Your task to perform on an android device: toggle improve location accuracy Image 0: 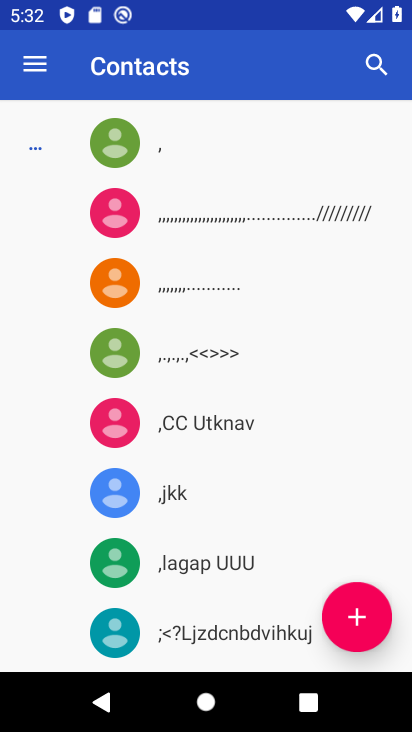
Step 0: press back button
Your task to perform on an android device: toggle improve location accuracy Image 1: 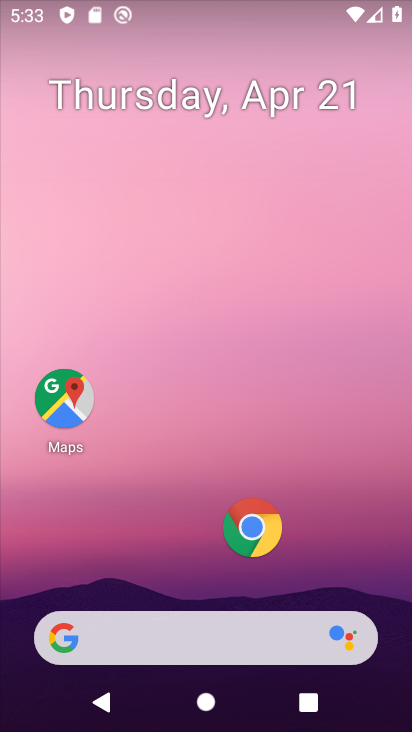
Step 1: drag from (203, 467) to (262, 65)
Your task to perform on an android device: toggle improve location accuracy Image 2: 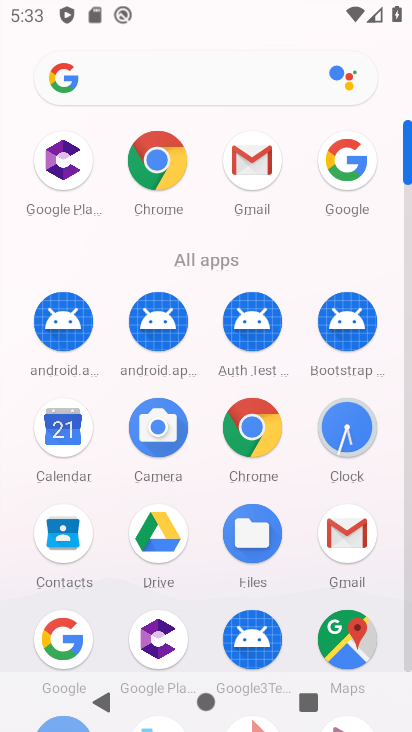
Step 2: drag from (195, 596) to (355, 35)
Your task to perform on an android device: toggle improve location accuracy Image 3: 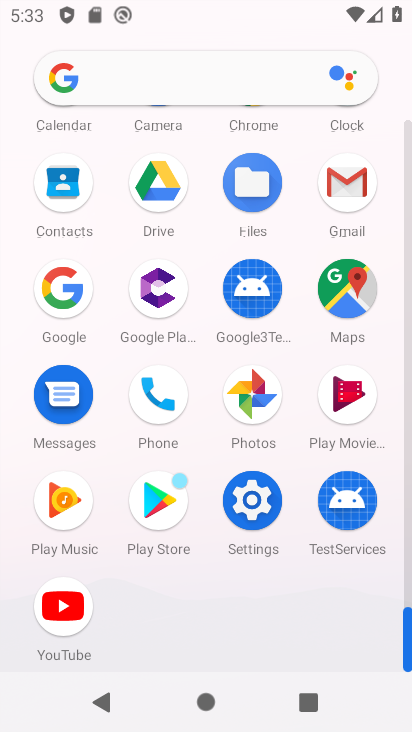
Step 3: click (261, 507)
Your task to perform on an android device: toggle improve location accuracy Image 4: 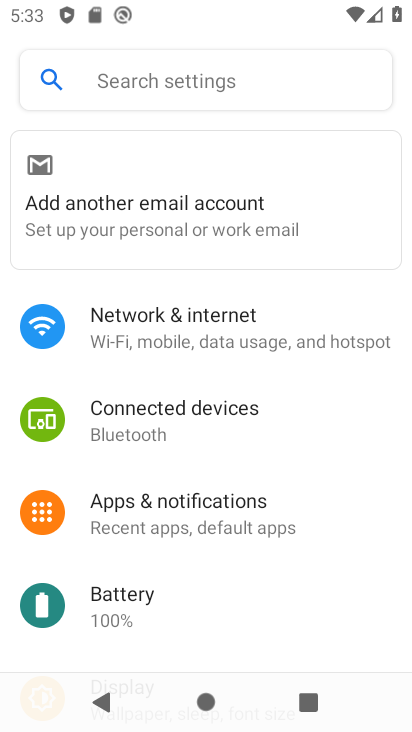
Step 4: drag from (182, 601) to (243, 93)
Your task to perform on an android device: toggle improve location accuracy Image 5: 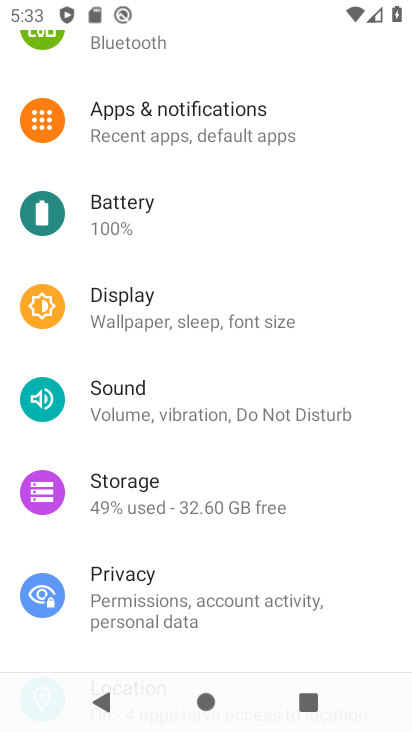
Step 5: drag from (138, 505) to (341, 39)
Your task to perform on an android device: toggle improve location accuracy Image 6: 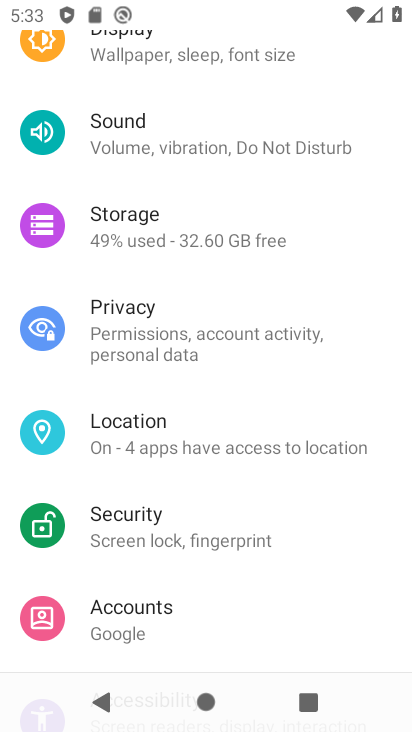
Step 6: click (178, 436)
Your task to perform on an android device: toggle improve location accuracy Image 7: 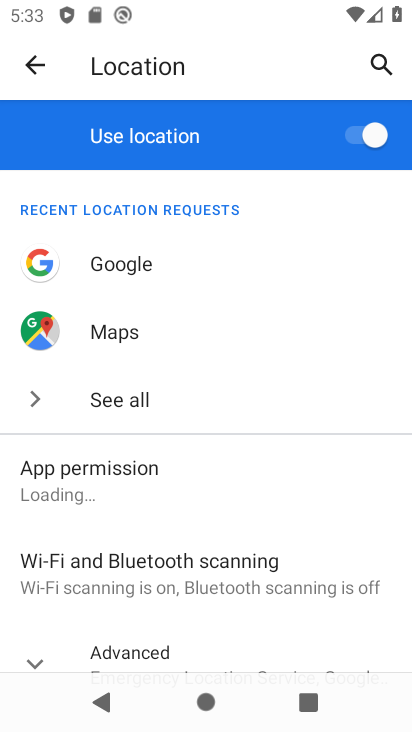
Step 7: drag from (164, 568) to (271, 164)
Your task to perform on an android device: toggle improve location accuracy Image 8: 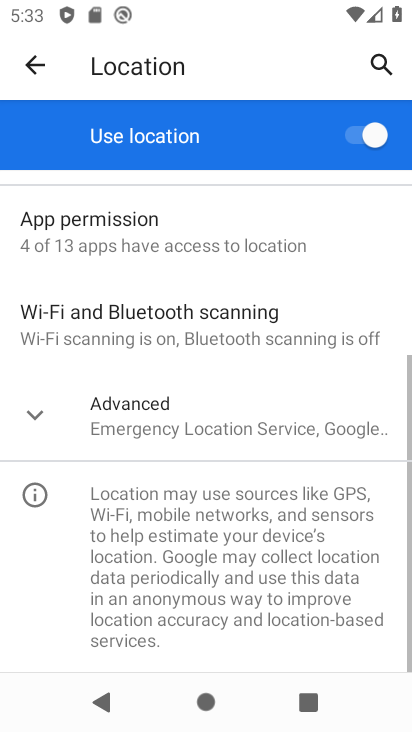
Step 8: click (166, 401)
Your task to perform on an android device: toggle improve location accuracy Image 9: 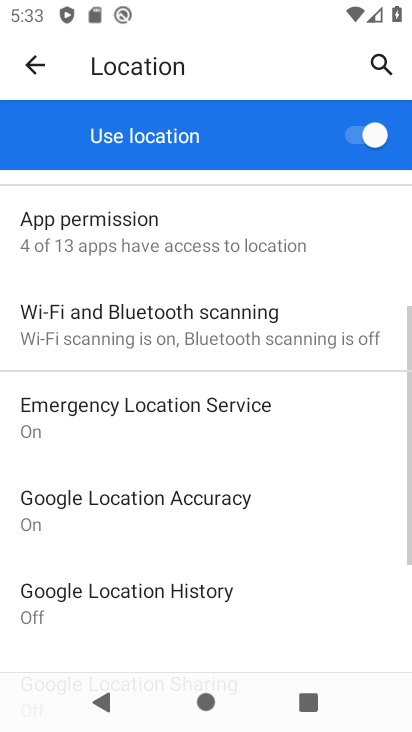
Step 9: click (157, 502)
Your task to perform on an android device: toggle improve location accuracy Image 10: 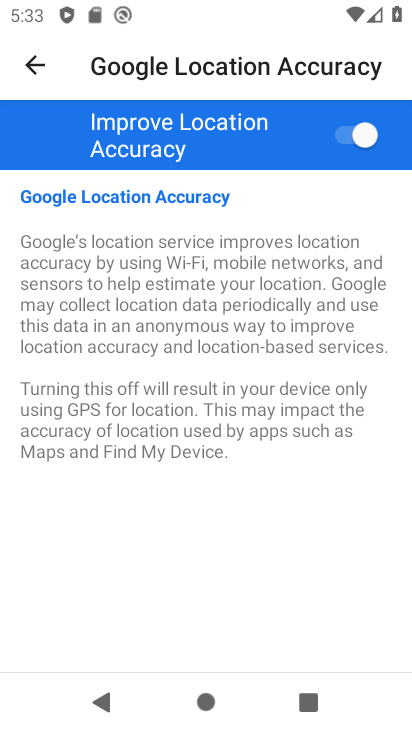
Step 10: click (363, 133)
Your task to perform on an android device: toggle improve location accuracy Image 11: 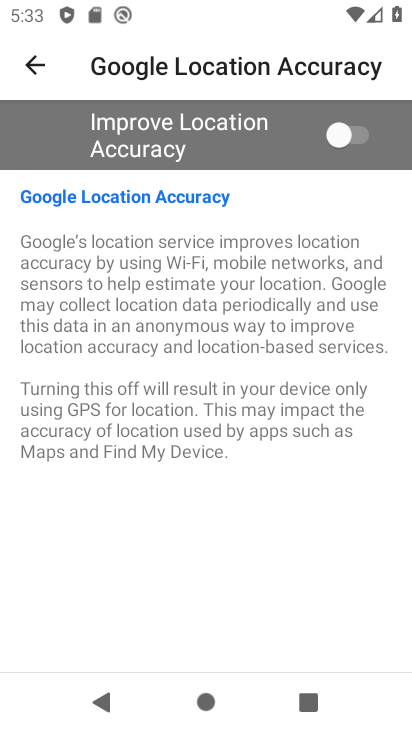
Step 11: task complete